Your task to perform on an android device: Go to Maps Image 0: 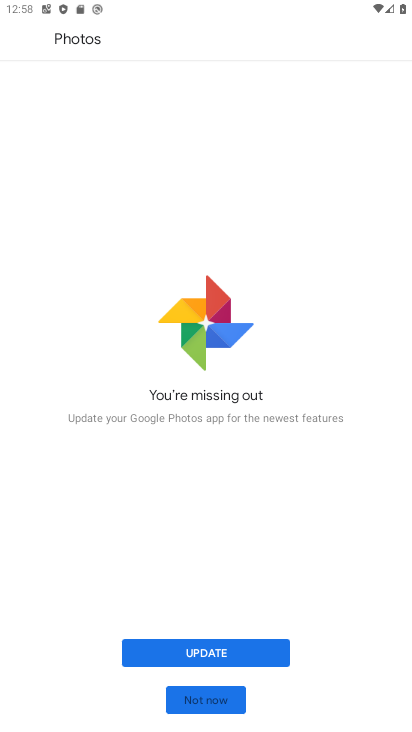
Step 0: press home button
Your task to perform on an android device: Go to Maps Image 1: 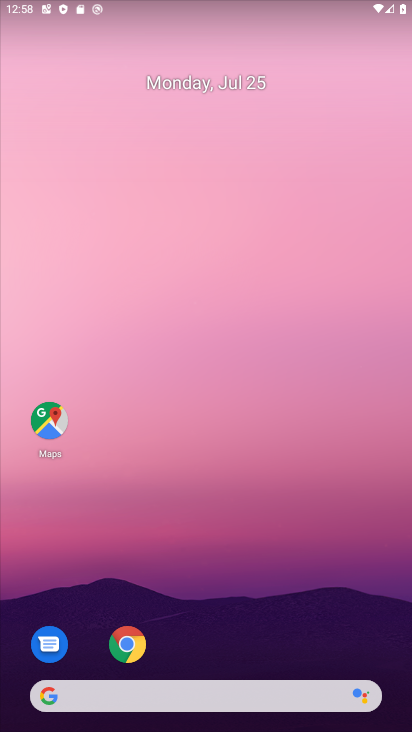
Step 1: click (42, 427)
Your task to perform on an android device: Go to Maps Image 2: 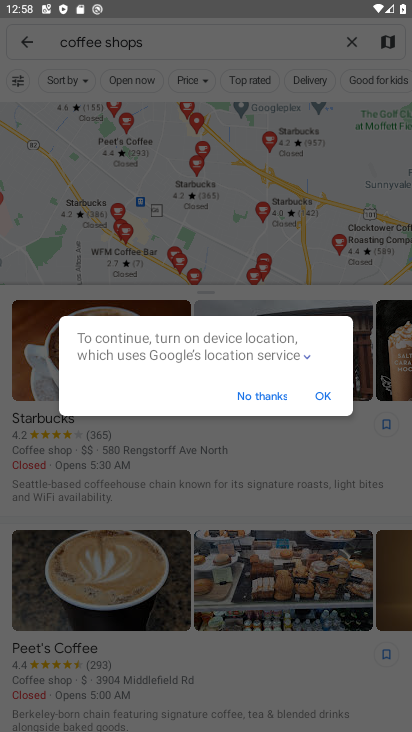
Step 2: task complete